Your task to perform on an android device: turn off wifi Image 0: 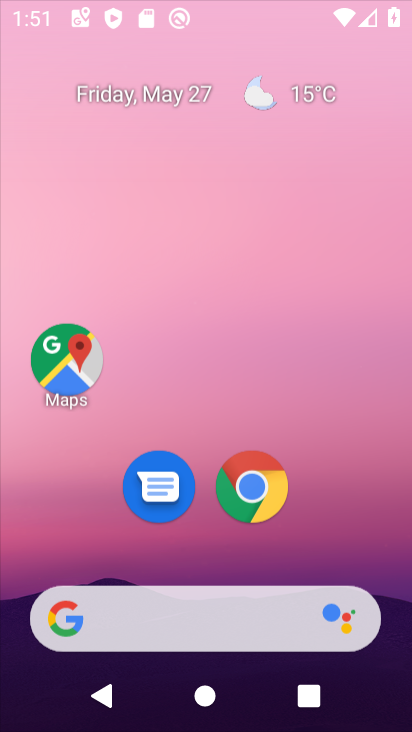
Step 0: click (339, 172)
Your task to perform on an android device: turn off wifi Image 1: 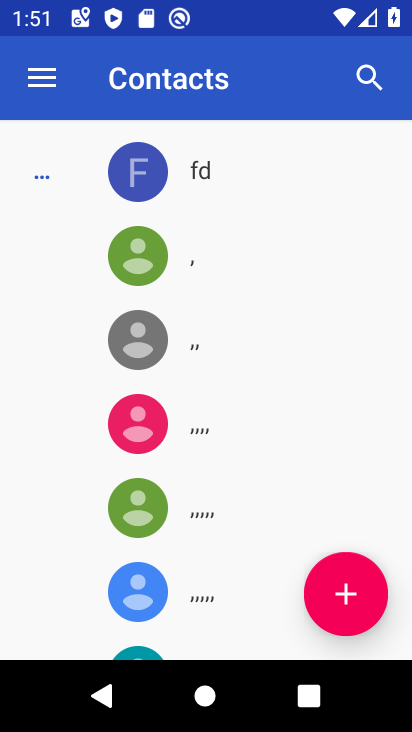
Step 1: press home button
Your task to perform on an android device: turn off wifi Image 2: 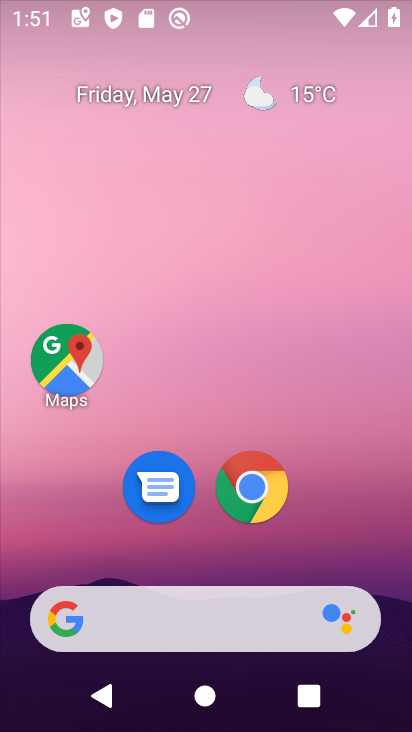
Step 2: drag from (353, 427) to (369, 131)
Your task to perform on an android device: turn off wifi Image 3: 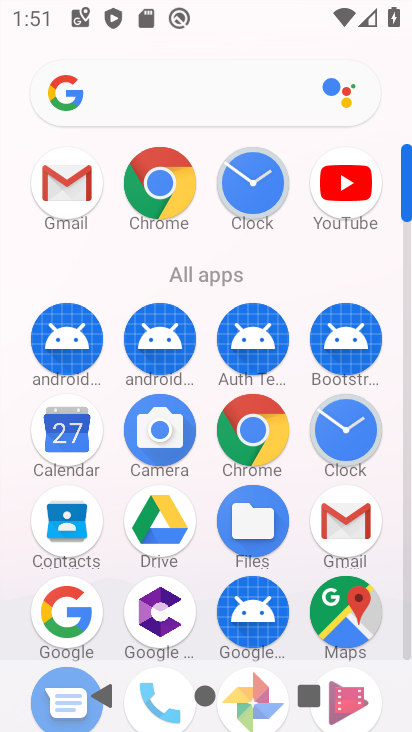
Step 3: drag from (286, 559) to (313, 220)
Your task to perform on an android device: turn off wifi Image 4: 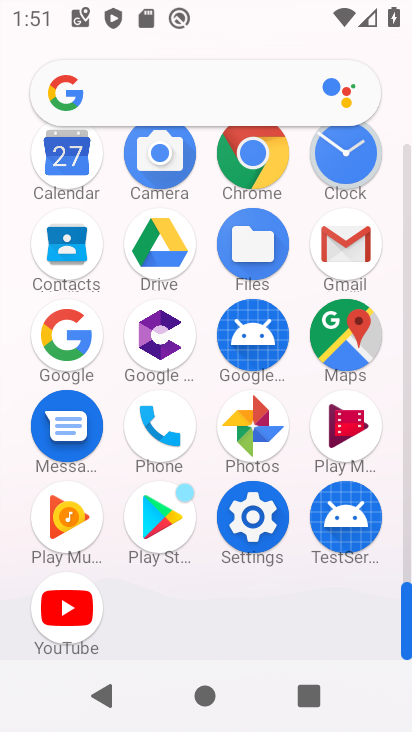
Step 4: click (245, 540)
Your task to perform on an android device: turn off wifi Image 5: 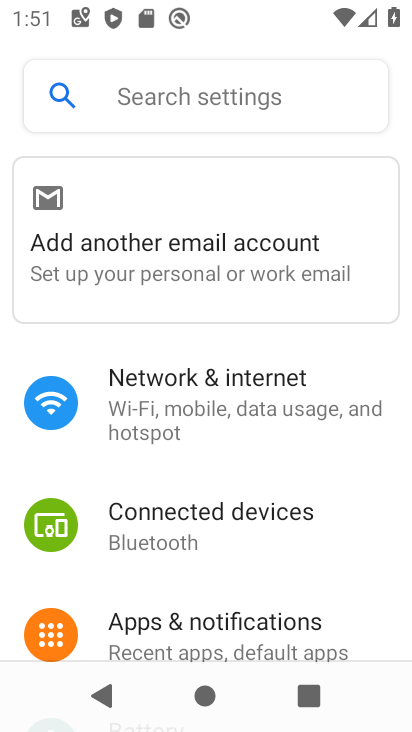
Step 5: click (198, 383)
Your task to perform on an android device: turn off wifi Image 6: 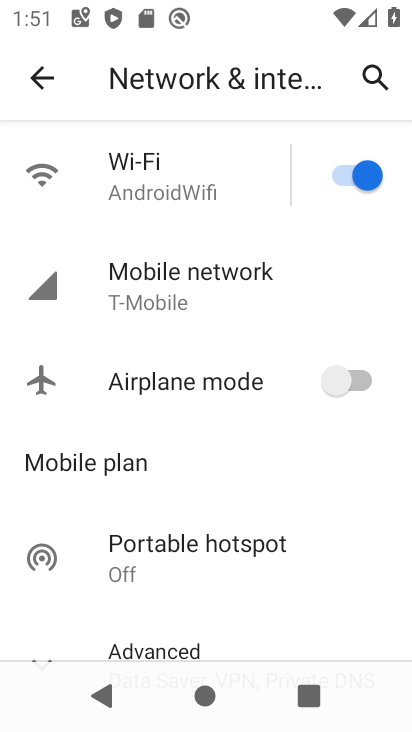
Step 6: click (150, 177)
Your task to perform on an android device: turn off wifi Image 7: 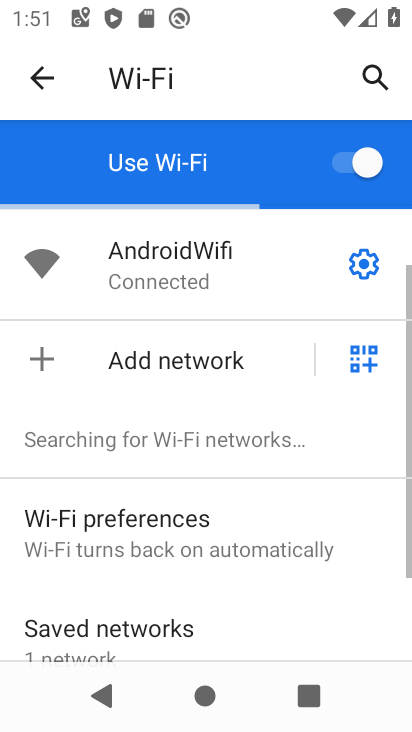
Step 7: click (347, 157)
Your task to perform on an android device: turn off wifi Image 8: 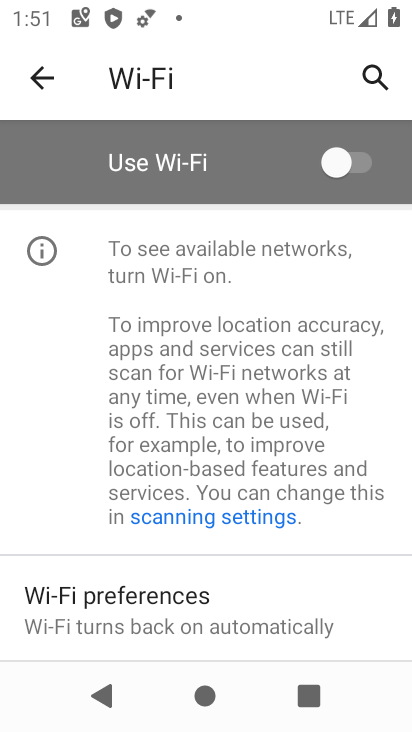
Step 8: task complete